Your task to perform on an android device: Go to Yahoo.com Image 0: 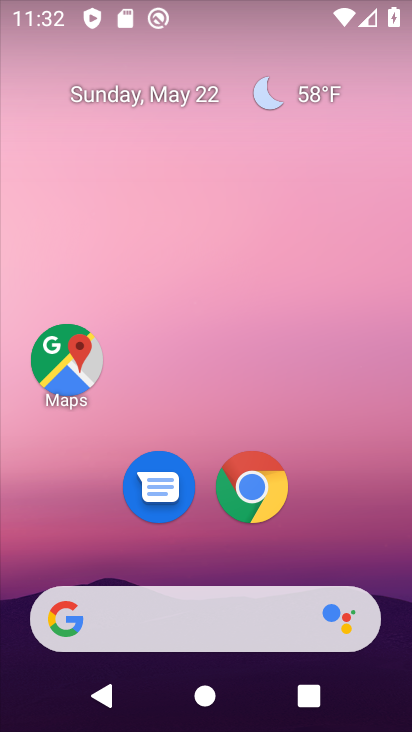
Step 0: click (254, 491)
Your task to perform on an android device: Go to Yahoo.com Image 1: 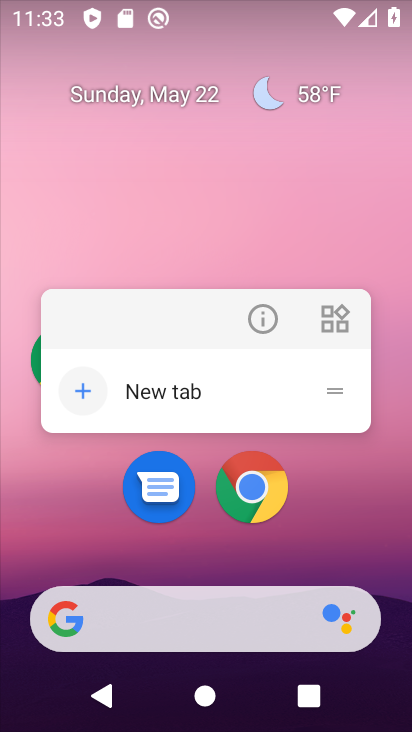
Step 1: click (375, 495)
Your task to perform on an android device: Go to Yahoo.com Image 2: 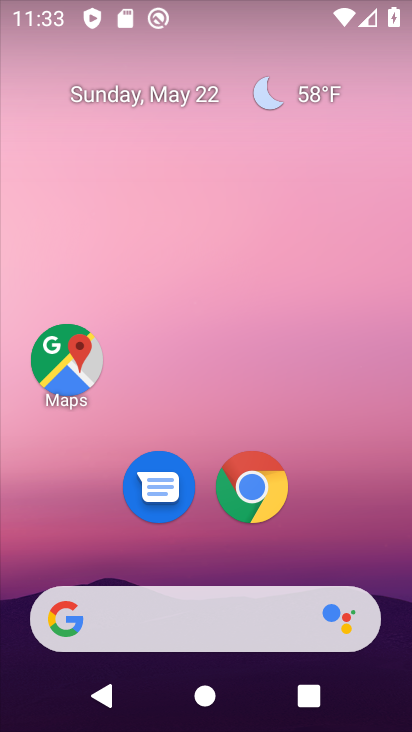
Step 2: click (256, 487)
Your task to perform on an android device: Go to Yahoo.com Image 3: 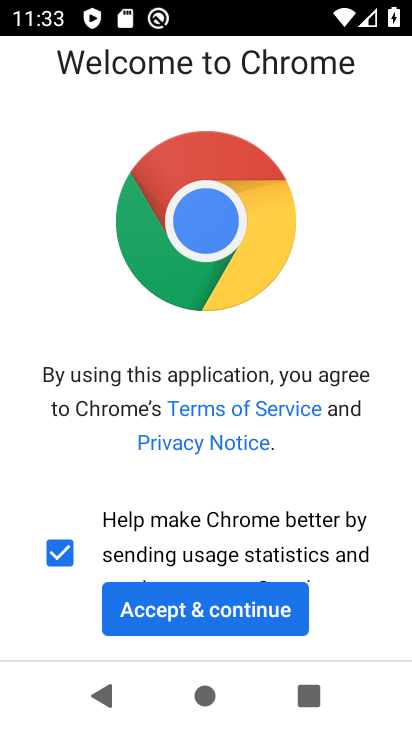
Step 3: click (248, 621)
Your task to perform on an android device: Go to Yahoo.com Image 4: 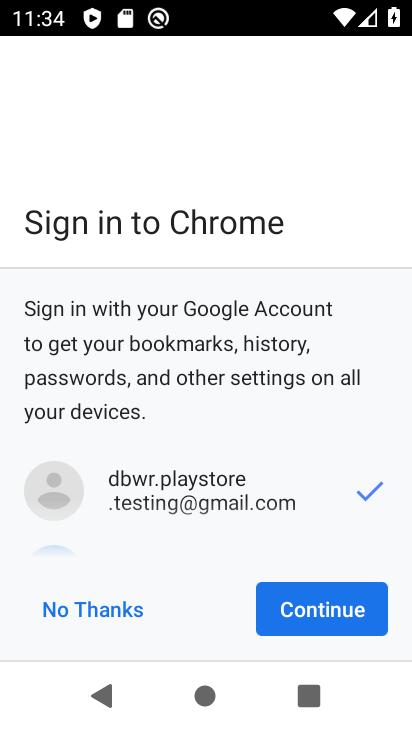
Step 4: click (48, 605)
Your task to perform on an android device: Go to Yahoo.com Image 5: 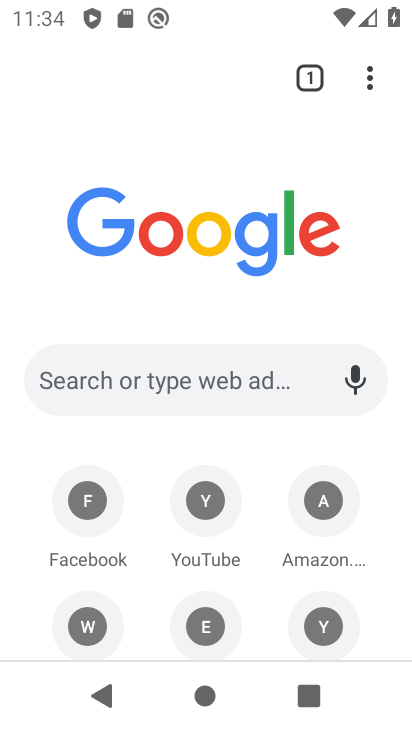
Step 5: click (144, 78)
Your task to perform on an android device: Go to Yahoo.com Image 6: 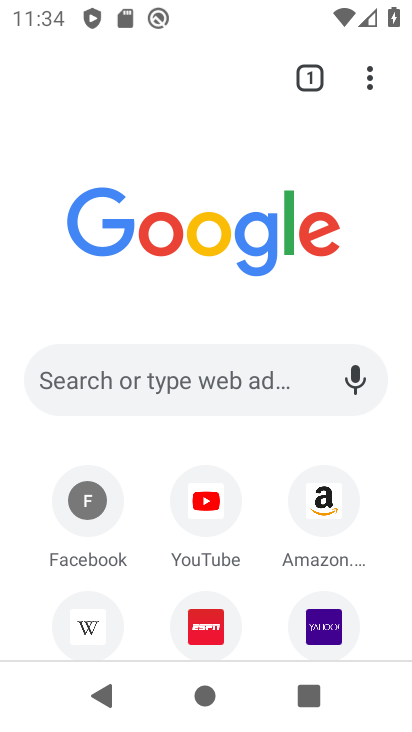
Step 6: click (342, 623)
Your task to perform on an android device: Go to Yahoo.com Image 7: 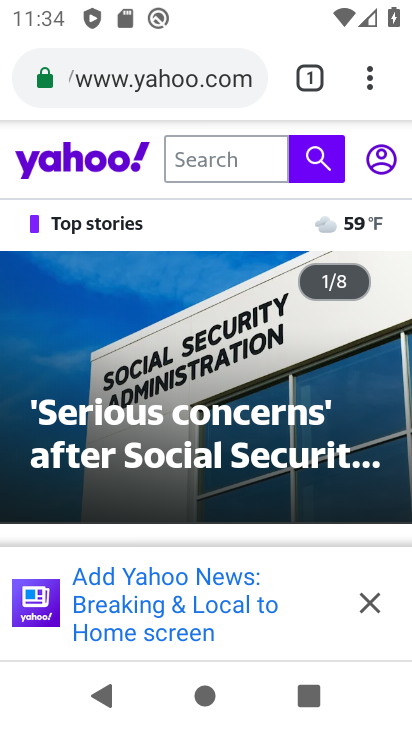
Step 7: task complete